Your task to perform on an android device: turn off data saver in the chrome app Image 0: 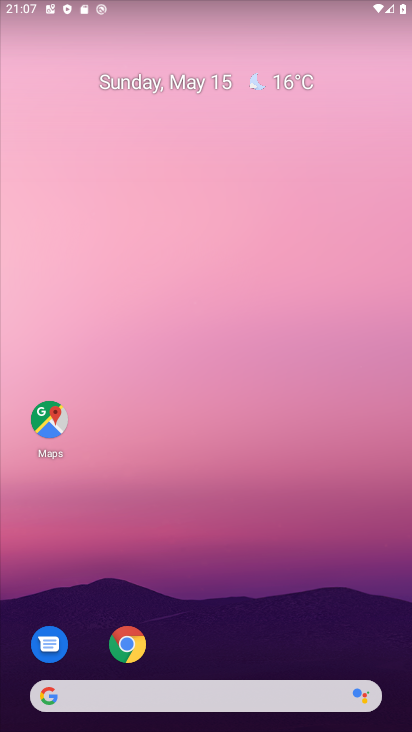
Step 0: click (134, 640)
Your task to perform on an android device: turn off data saver in the chrome app Image 1: 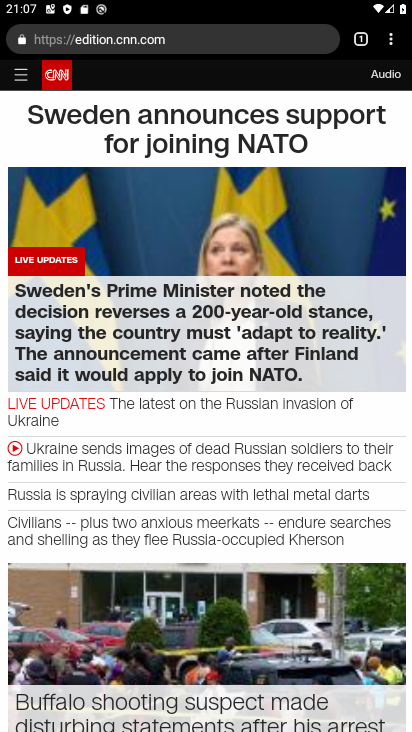
Step 1: drag from (387, 36) to (245, 435)
Your task to perform on an android device: turn off data saver in the chrome app Image 2: 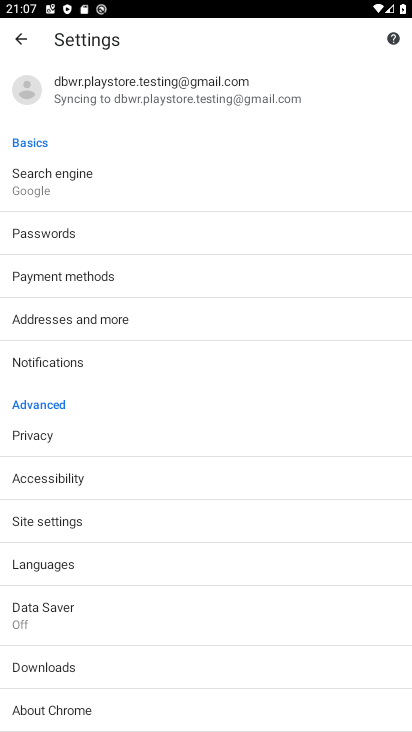
Step 2: click (89, 626)
Your task to perform on an android device: turn off data saver in the chrome app Image 3: 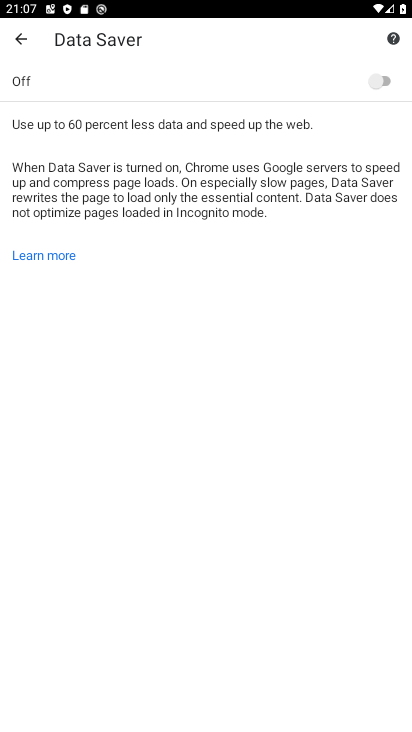
Step 3: task complete